Your task to perform on an android device: make emails show in primary in the gmail app Image 0: 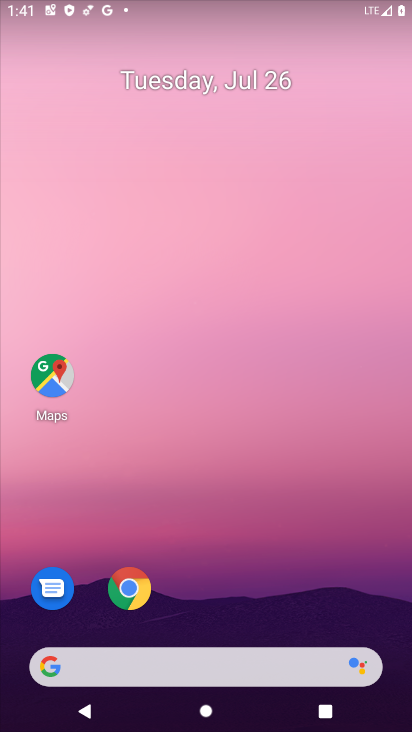
Step 0: drag from (197, 603) to (342, 184)
Your task to perform on an android device: make emails show in primary in the gmail app Image 1: 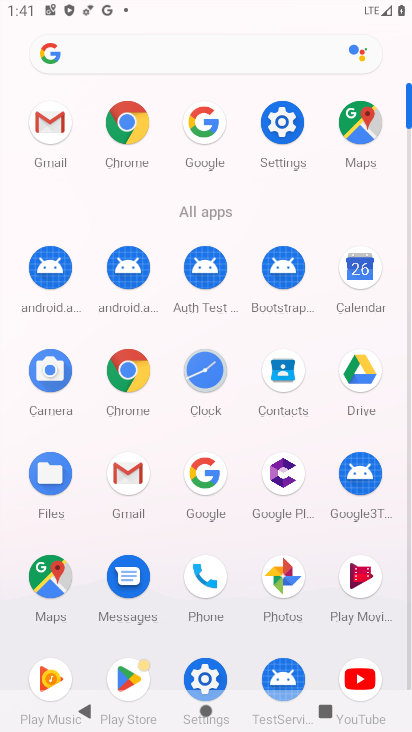
Step 1: click (119, 482)
Your task to perform on an android device: make emails show in primary in the gmail app Image 2: 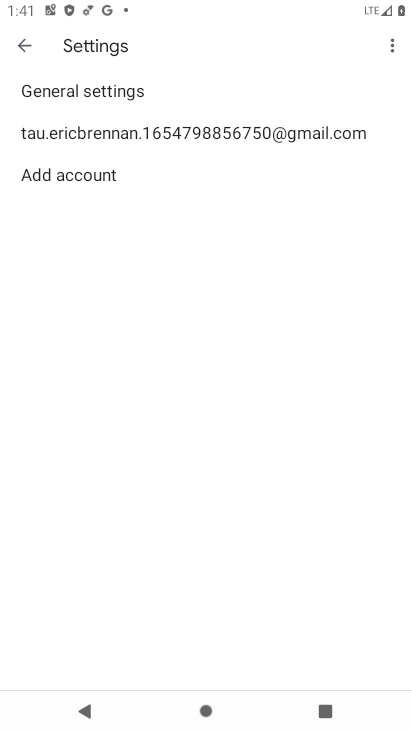
Step 2: click (25, 40)
Your task to perform on an android device: make emails show in primary in the gmail app Image 3: 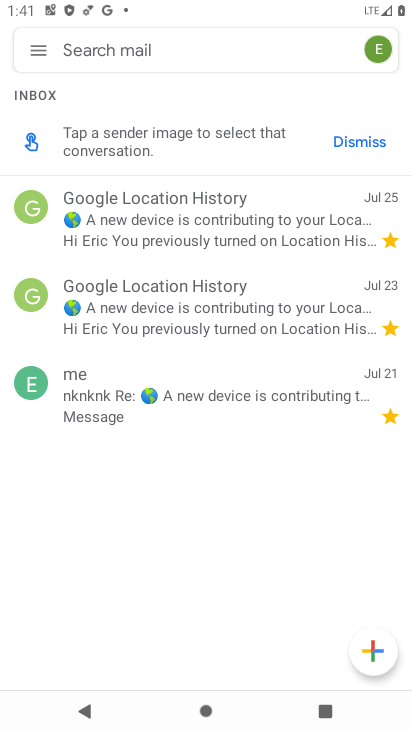
Step 3: click (40, 58)
Your task to perform on an android device: make emails show in primary in the gmail app Image 4: 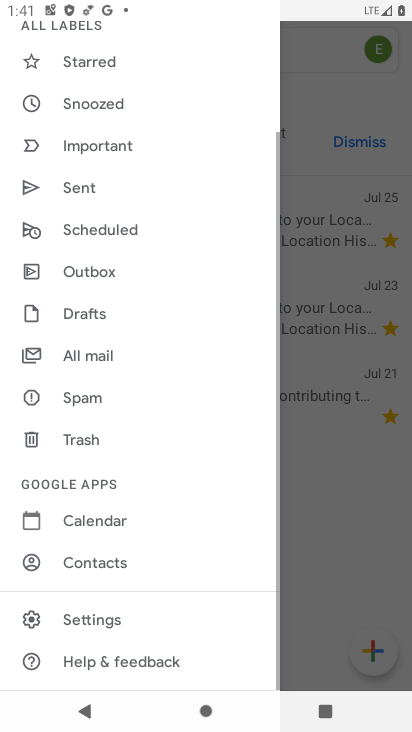
Step 4: drag from (76, 132) to (84, 592)
Your task to perform on an android device: make emails show in primary in the gmail app Image 5: 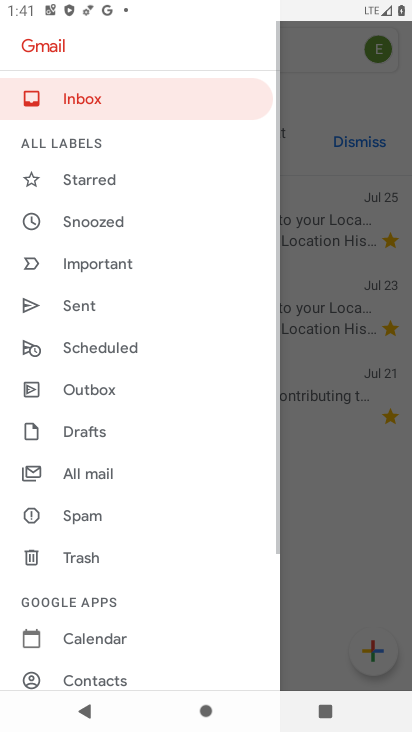
Step 5: drag from (194, 604) to (194, 272)
Your task to perform on an android device: make emails show in primary in the gmail app Image 6: 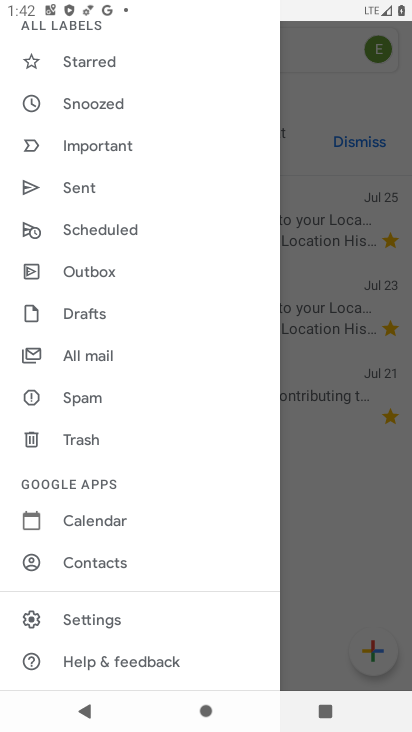
Step 6: click (85, 618)
Your task to perform on an android device: make emails show in primary in the gmail app Image 7: 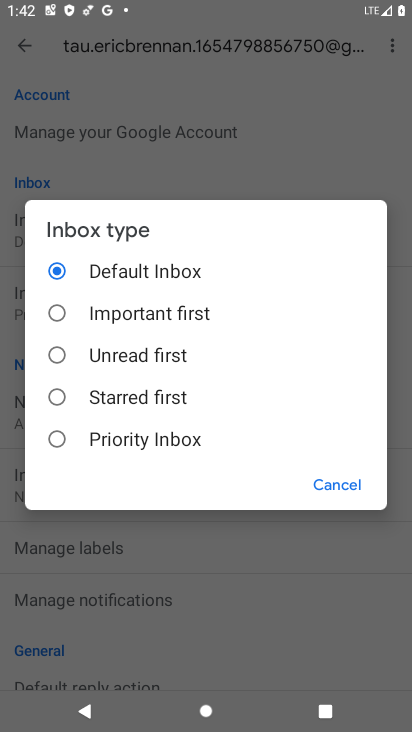
Step 7: click (339, 476)
Your task to perform on an android device: make emails show in primary in the gmail app Image 8: 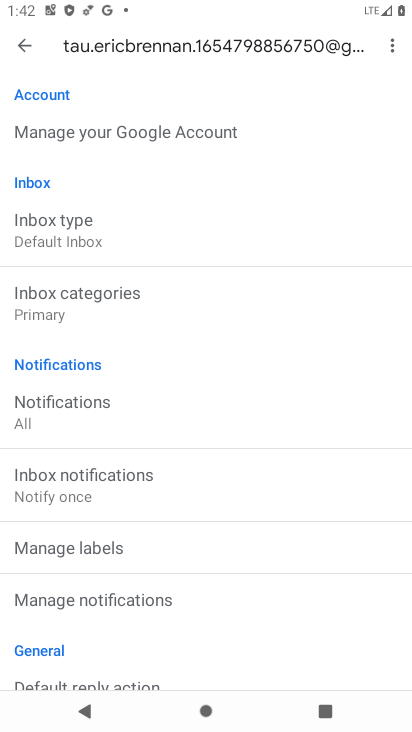
Step 8: click (64, 235)
Your task to perform on an android device: make emails show in primary in the gmail app Image 9: 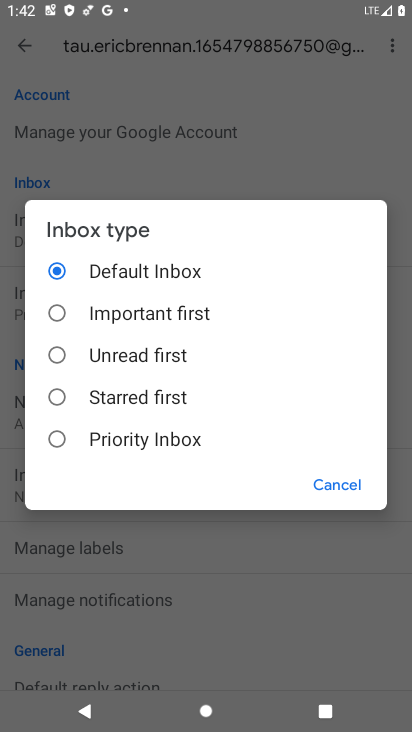
Step 9: click (110, 448)
Your task to perform on an android device: make emails show in primary in the gmail app Image 10: 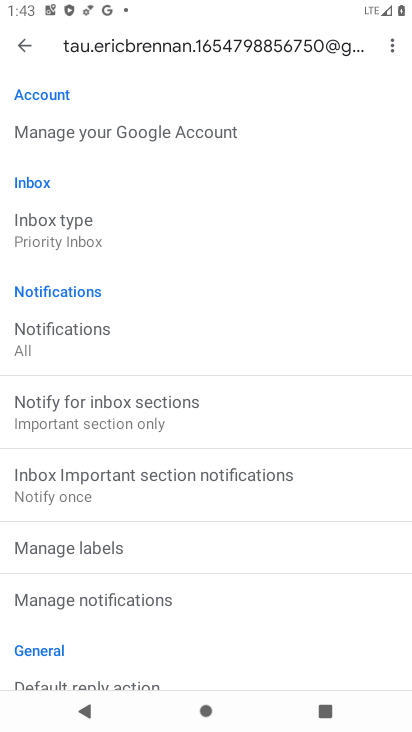
Step 10: task complete